Your task to perform on an android device: show emergency info Image 0: 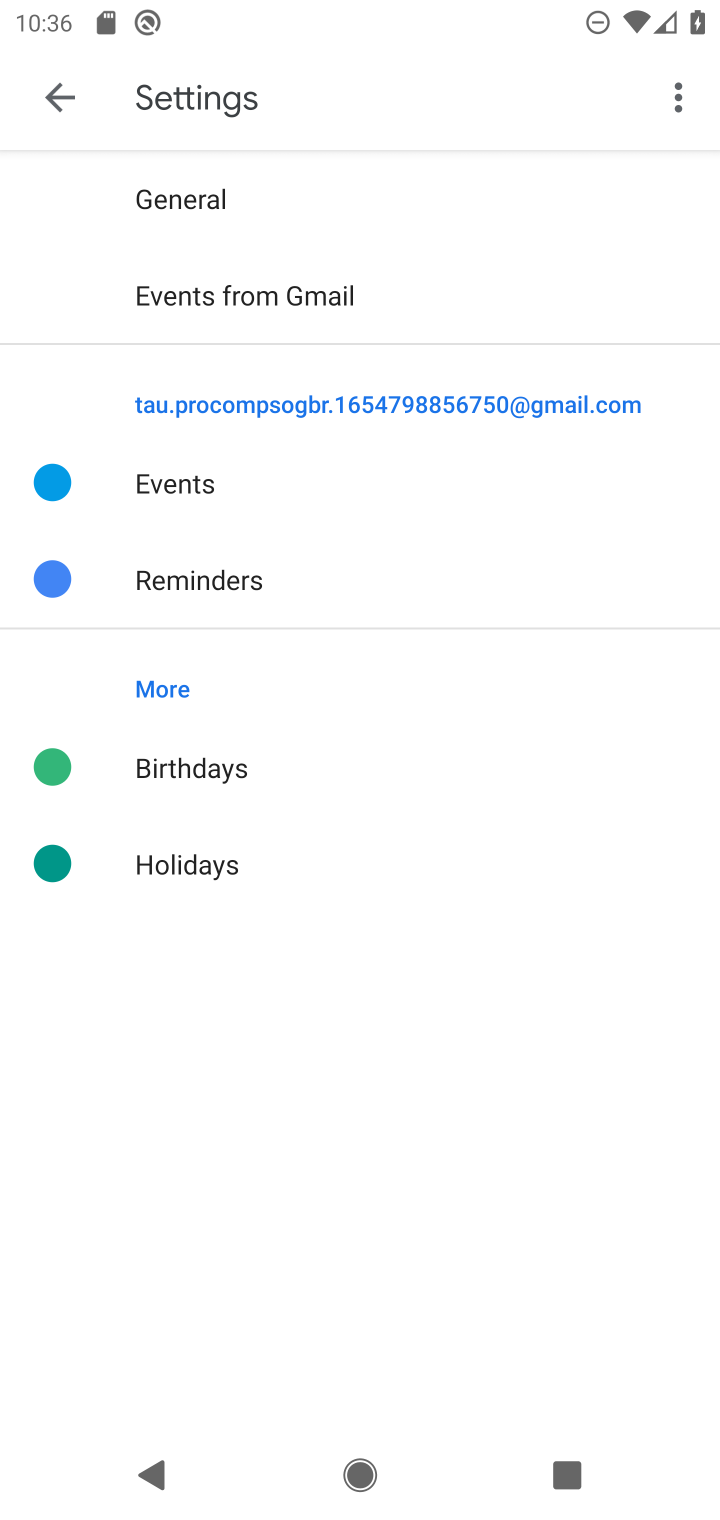
Step 0: press home button
Your task to perform on an android device: show emergency info Image 1: 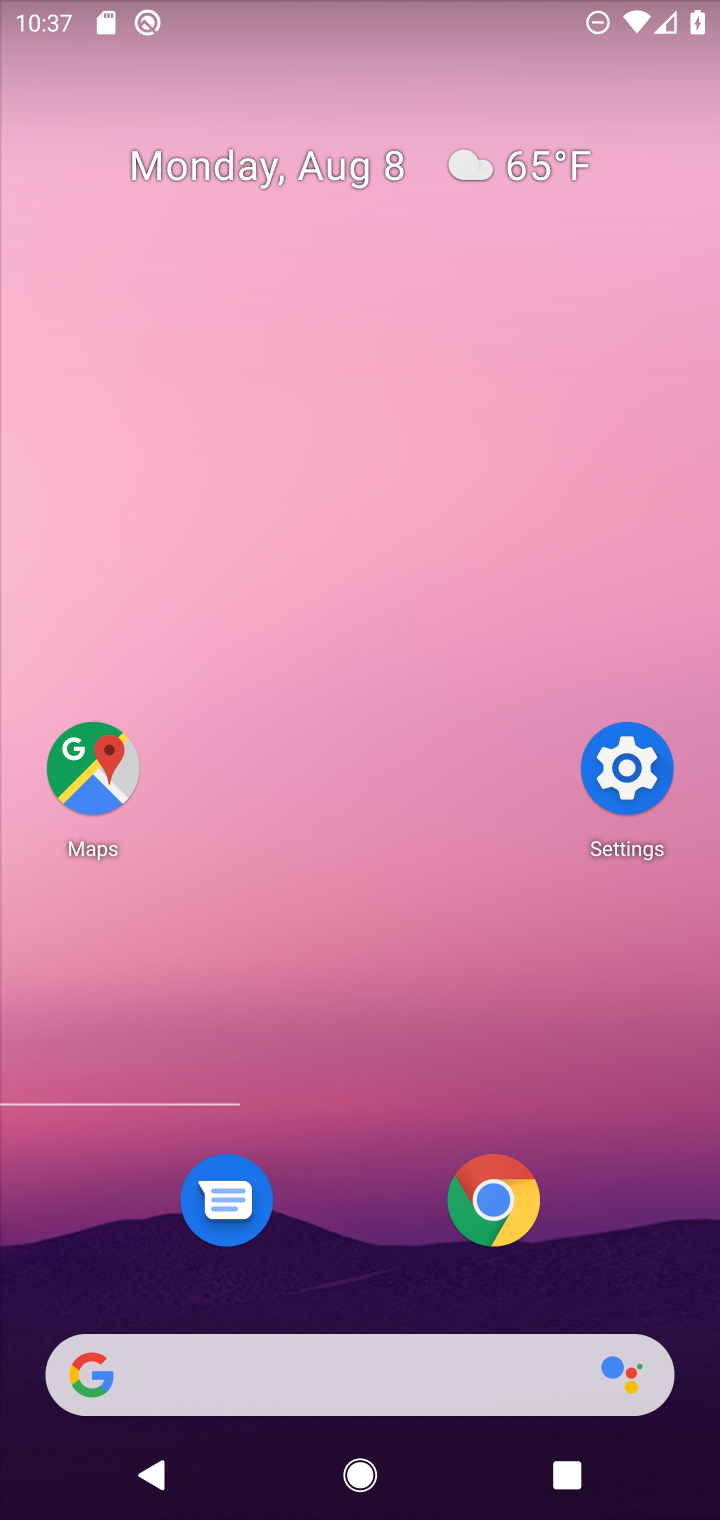
Step 1: click (614, 771)
Your task to perform on an android device: show emergency info Image 2: 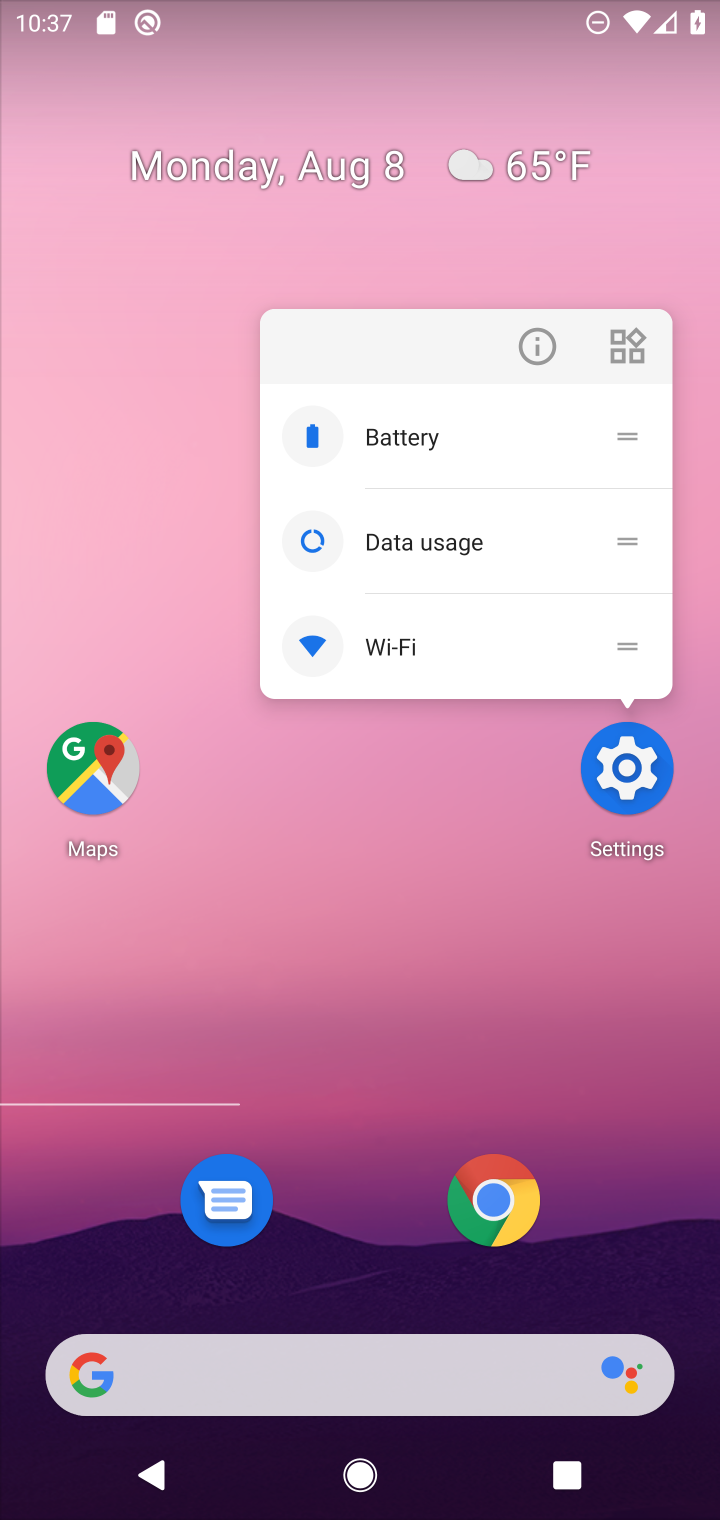
Step 2: click (614, 769)
Your task to perform on an android device: show emergency info Image 3: 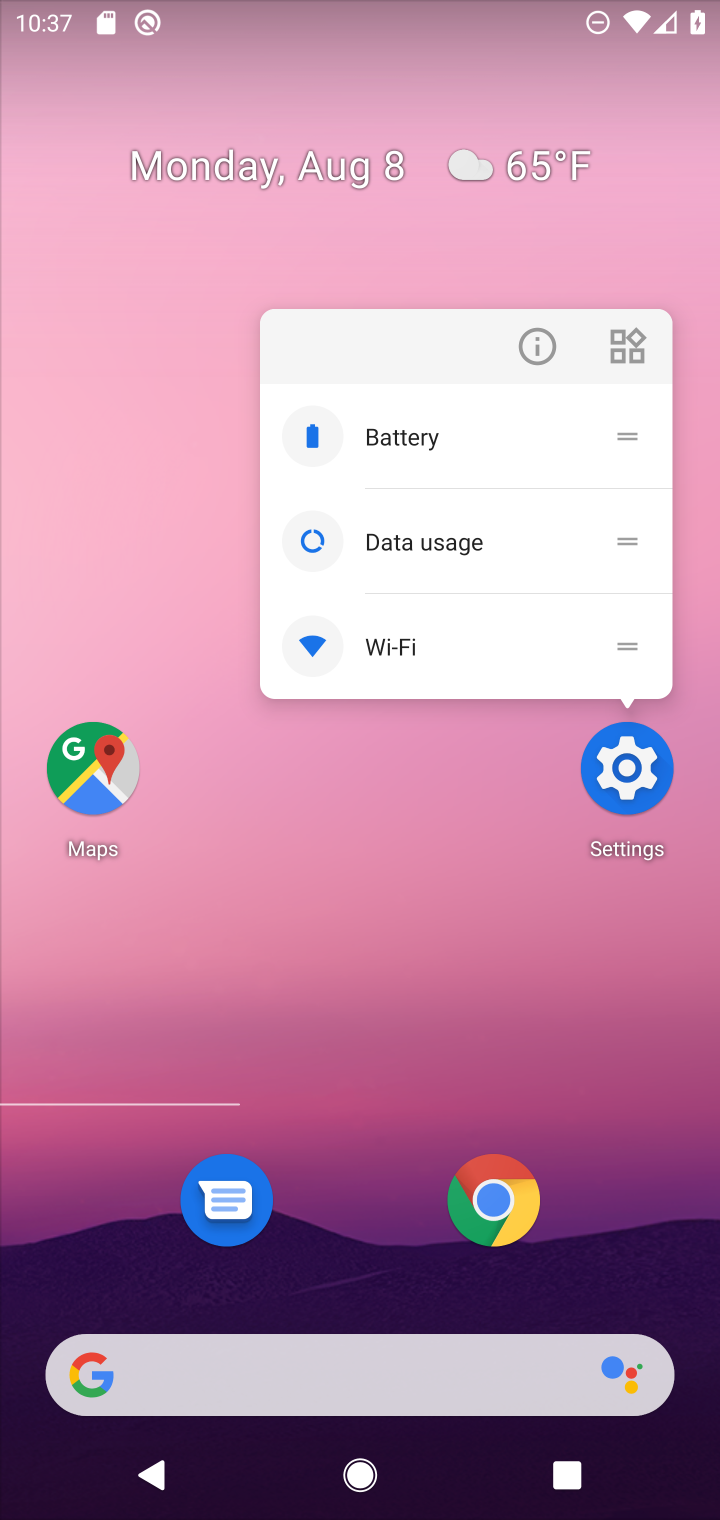
Step 3: click (622, 762)
Your task to perform on an android device: show emergency info Image 4: 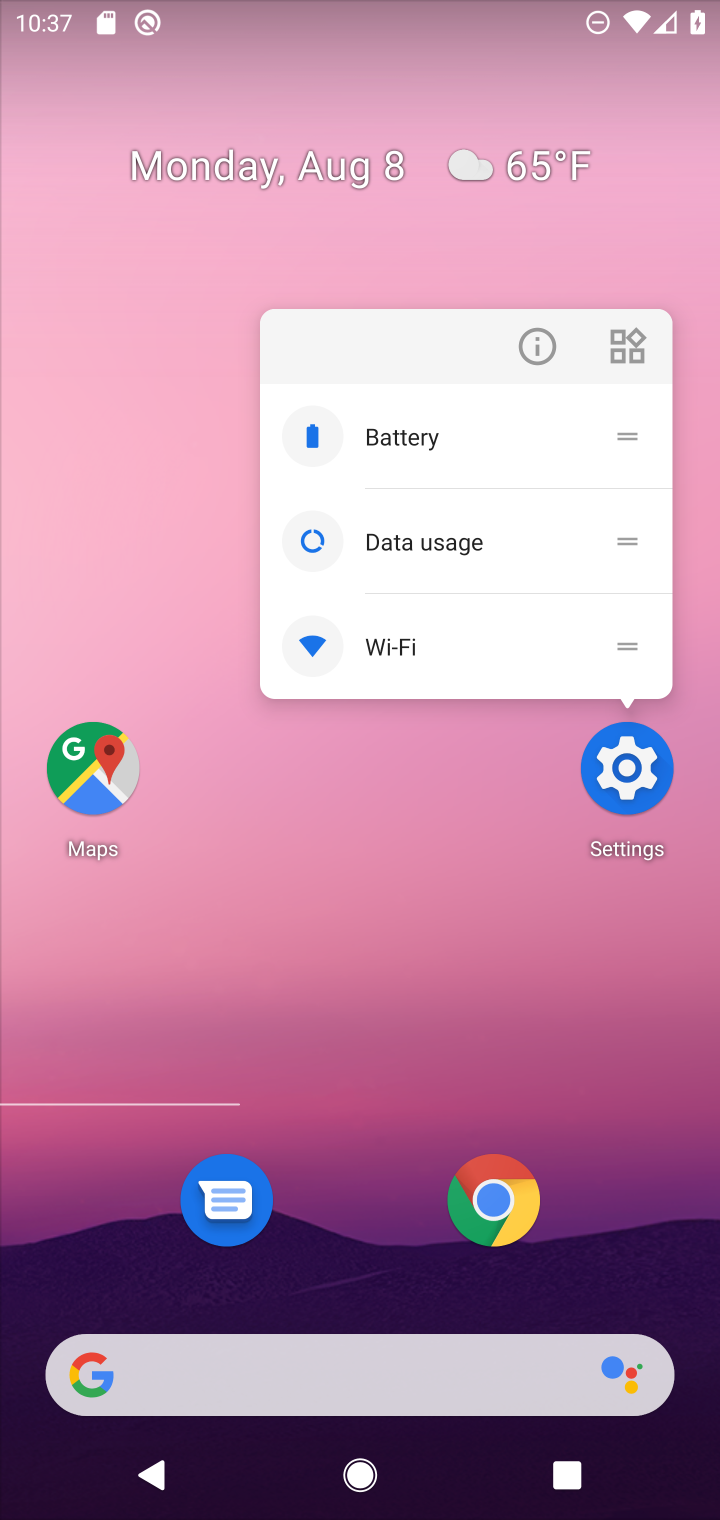
Step 4: click (624, 777)
Your task to perform on an android device: show emergency info Image 5: 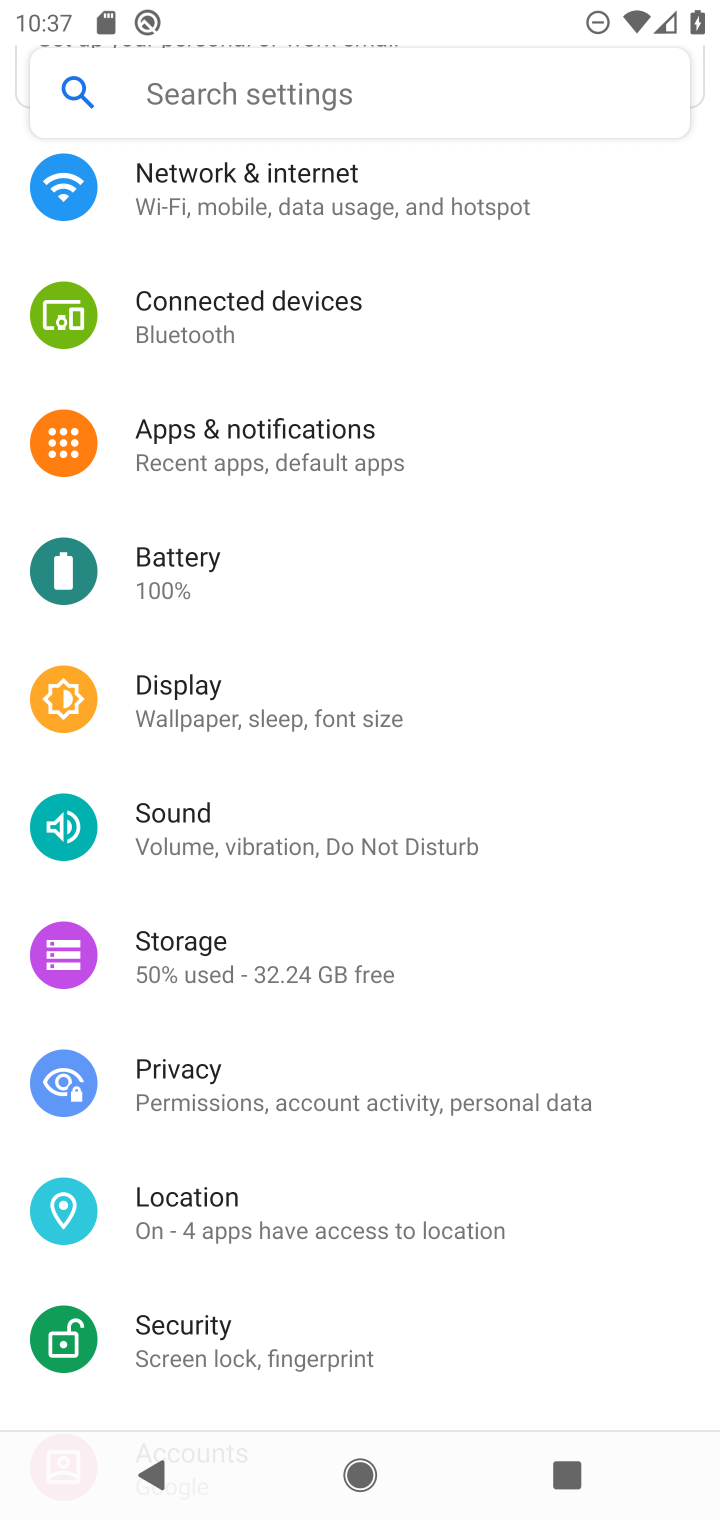
Step 5: drag from (368, 1072) to (641, 334)
Your task to perform on an android device: show emergency info Image 6: 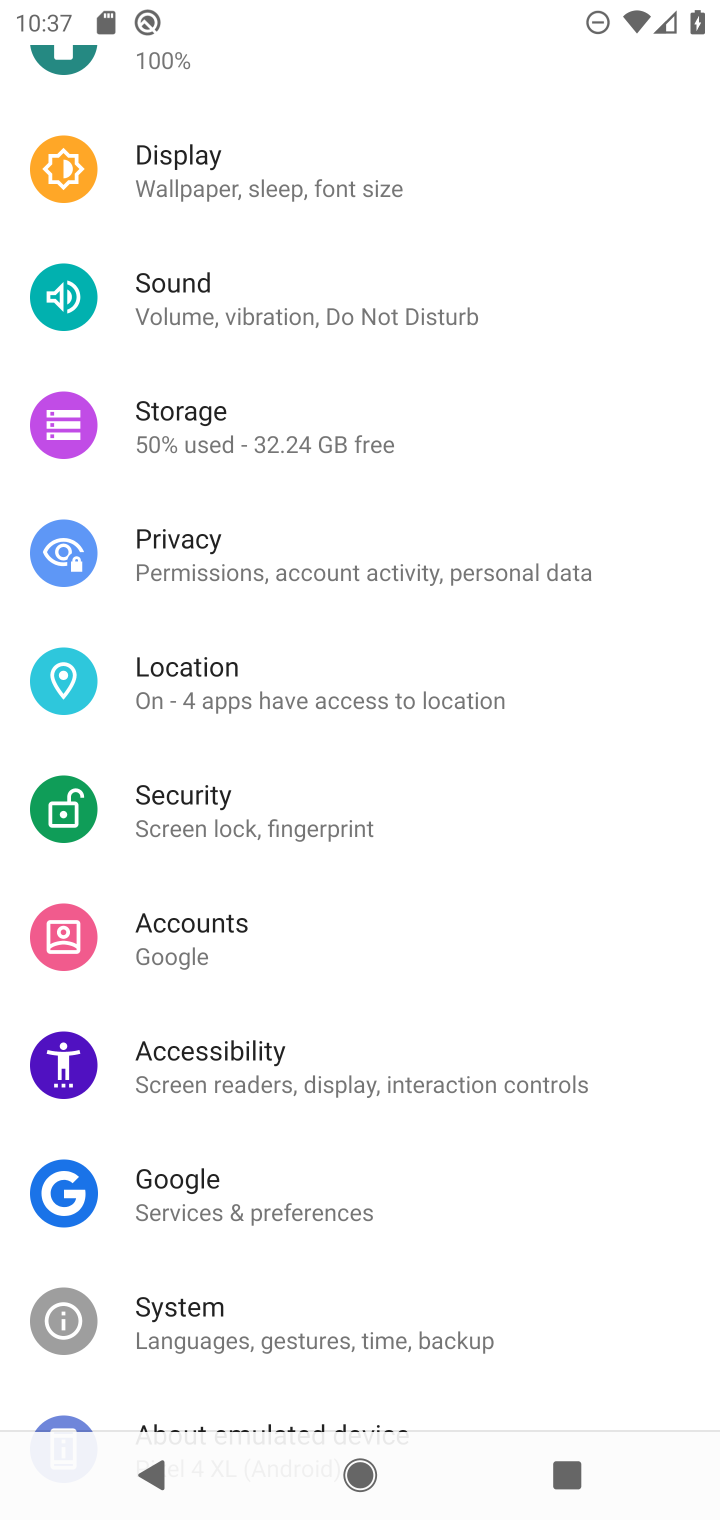
Step 6: drag from (410, 1186) to (606, 189)
Your task to perform on an android device: show emergency info Image 7: 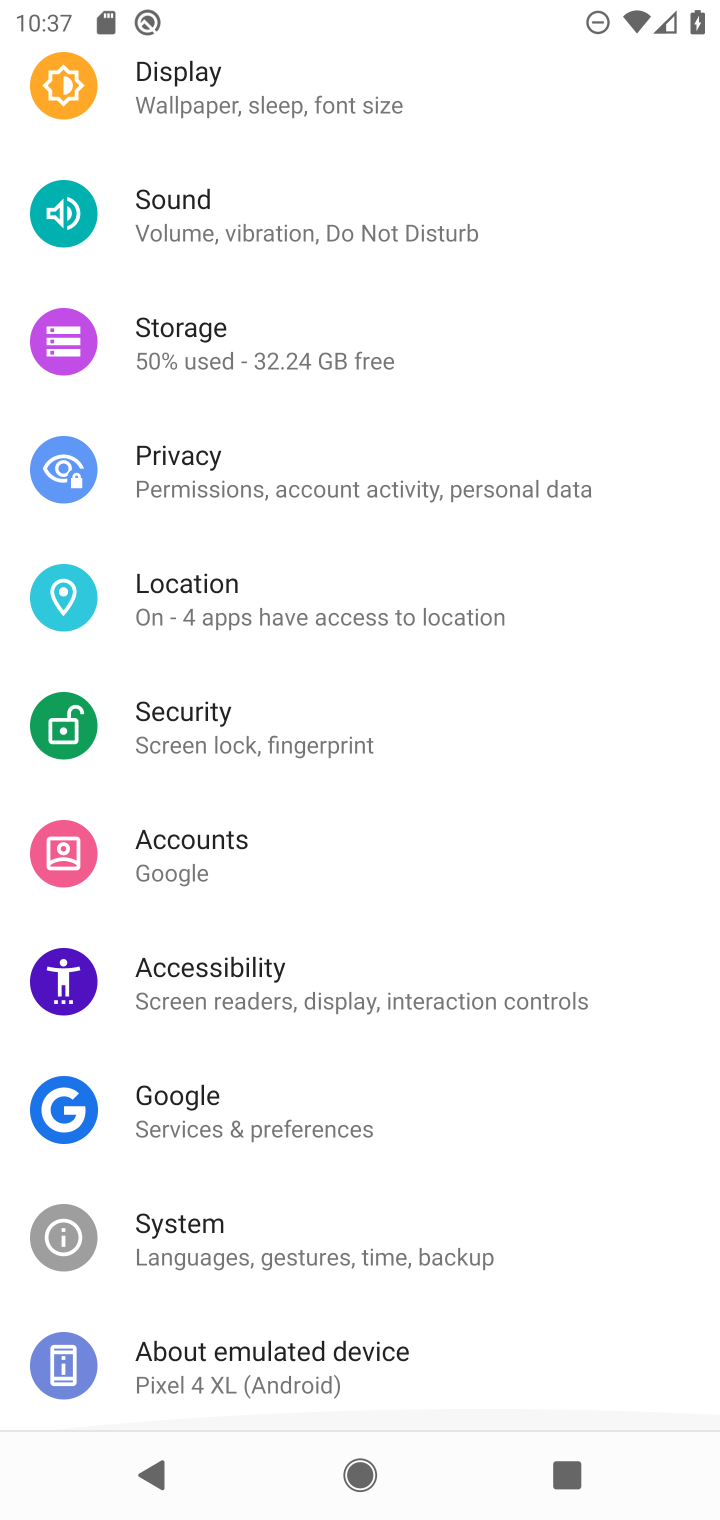
Step 7: click (304, 1373)
Your task to perform on an android device: show emergency info Image 8: 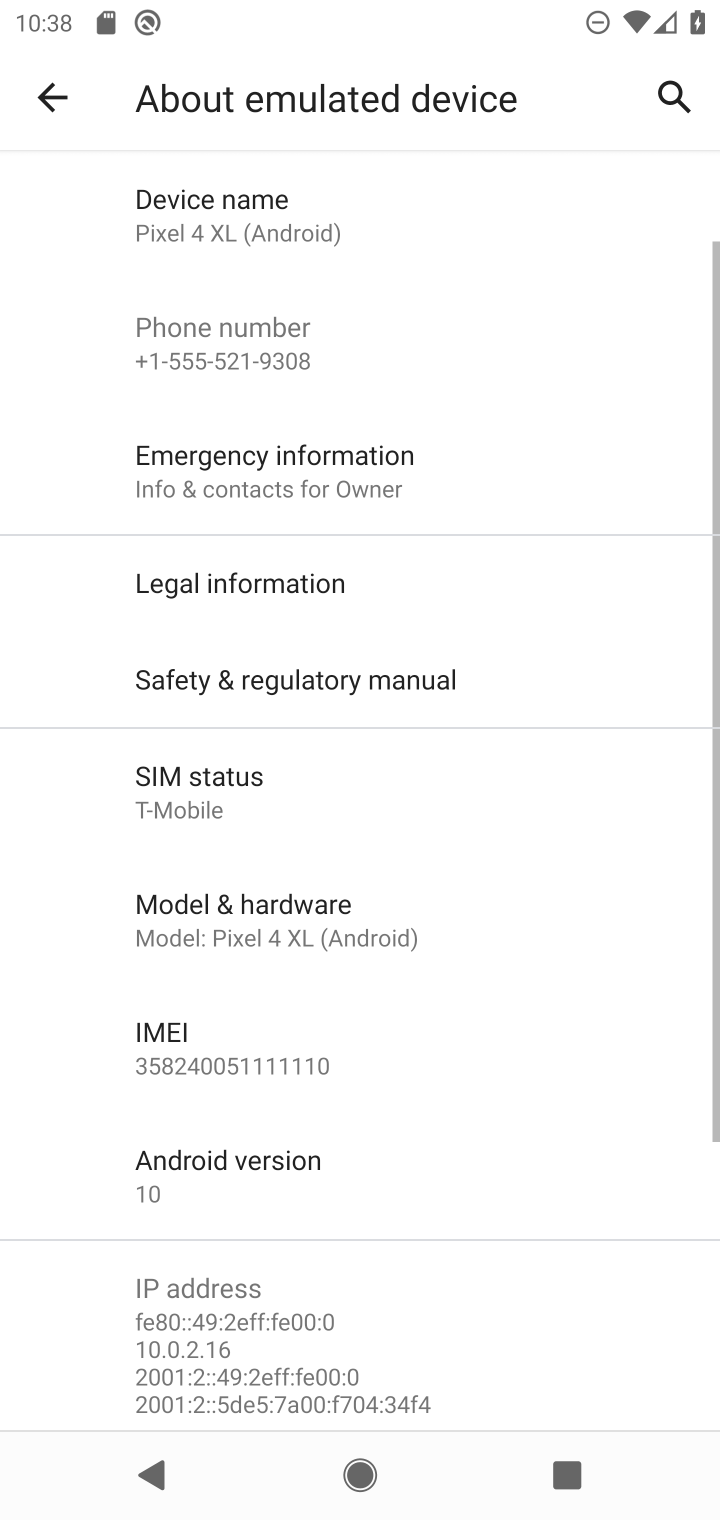
Step 8: click (376, 450)
Your task to perform on an android device: show emergency info Image 9: 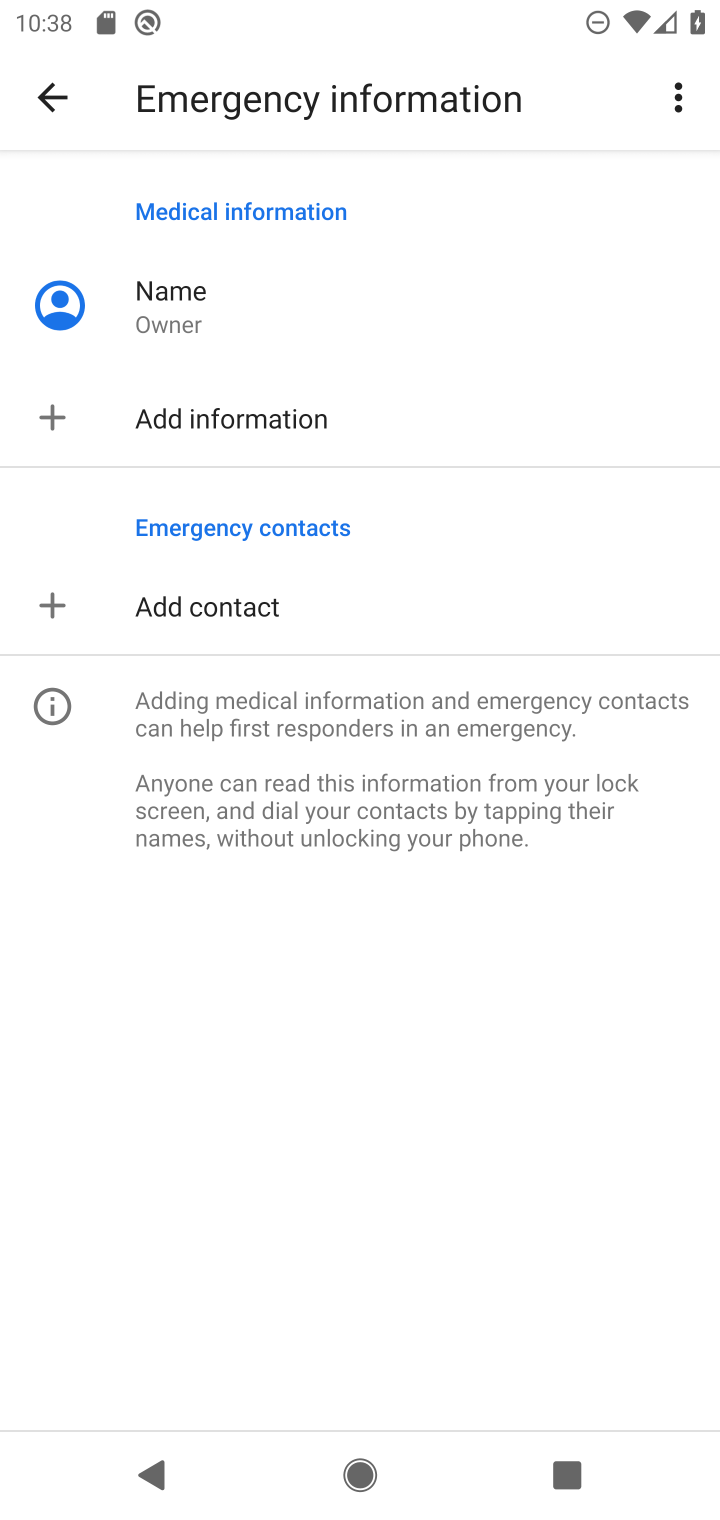
Step 9: task complete